Your task to perform on an android device: check android version Image 0: 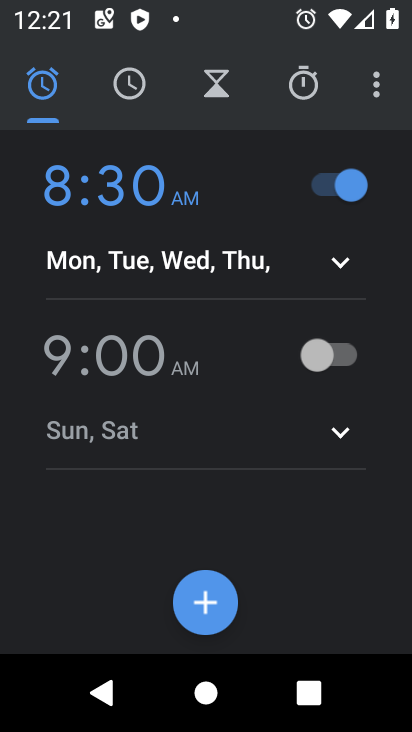
Step 0: press home button
Your task to perform on an android device: check android version Image 1: 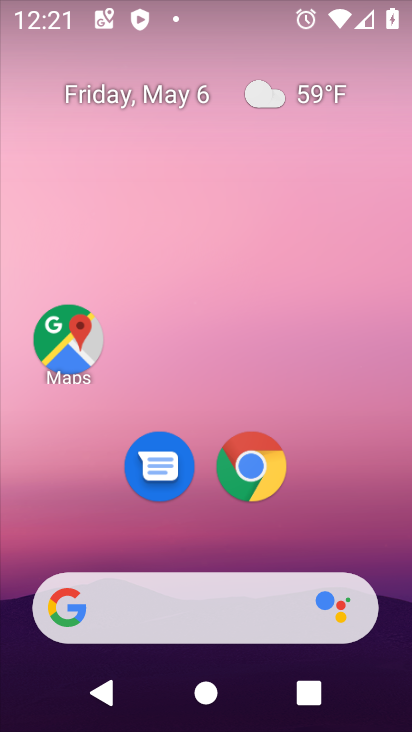
Step 1: drag from (182, 532) to (197, 151)
Your task to perform on an android device: check android version Image 2: 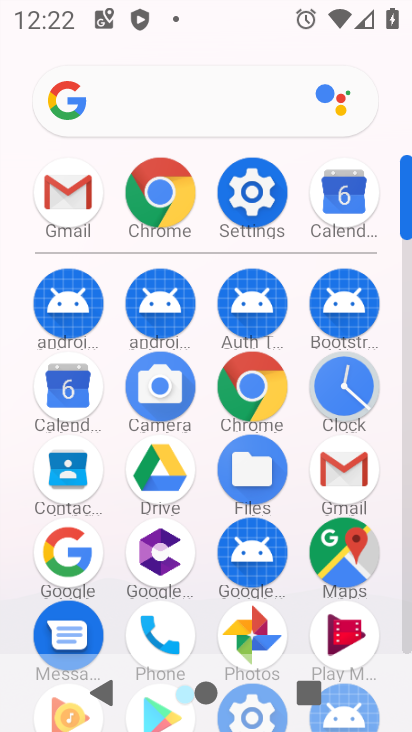
Step 2: click (261, 190)
Your task to perform on an android device: check android version Image 3: 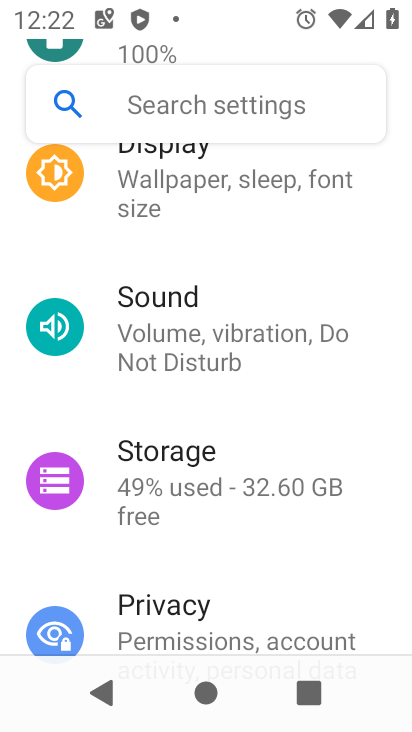
Step 3: drag from (102, 643) to (205, 152)
Your task to perform on an android device: check android version Image 4: 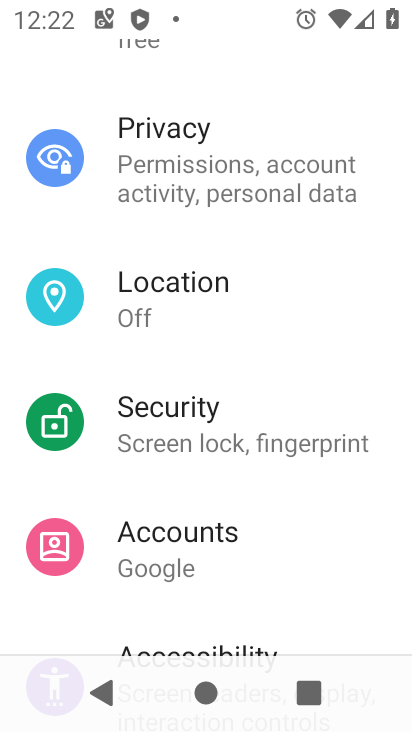
Step 4: drag from (141, 573) to (238, 207)
Your task to perform on an android device: check android version Image 5: 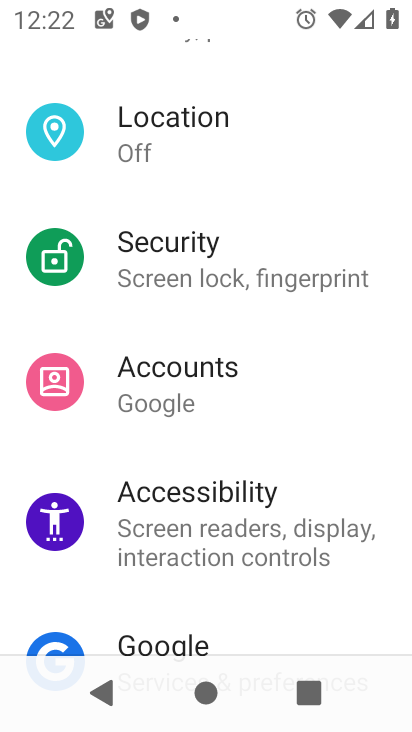
Step 5: drag from (148, 644) to (262, 212)
Your task to perform on an android device: check android version Image 6: 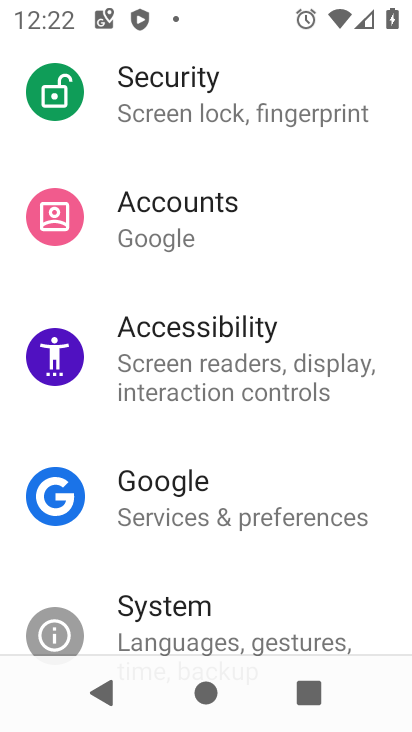
Step 6: drag from (150, 612) to (286, 214)
Your task to perform on an android device: check android version Image 7: 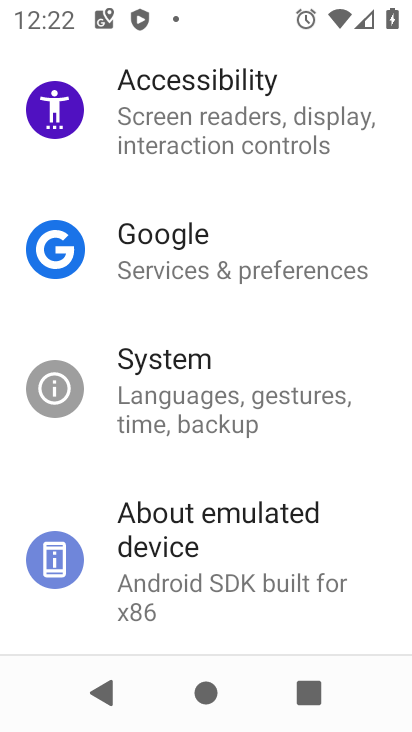
Step 7: click (185, 520)
Your task to perform on an android device: check android version Image 8: 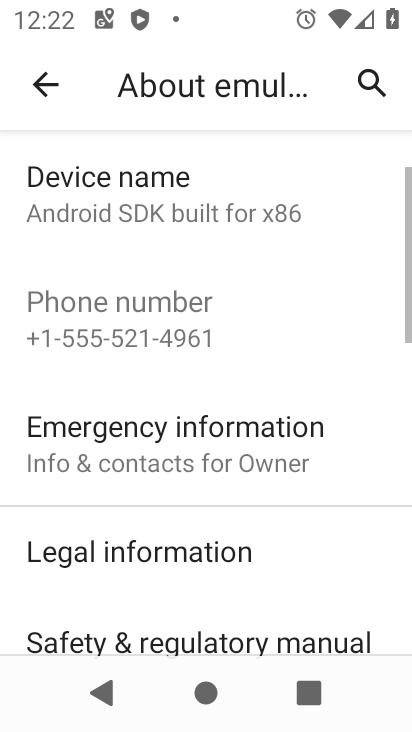
Step 8: drag from (102, 595) to (223, 179)
Your task to perform on an android device: check android version Image 9: 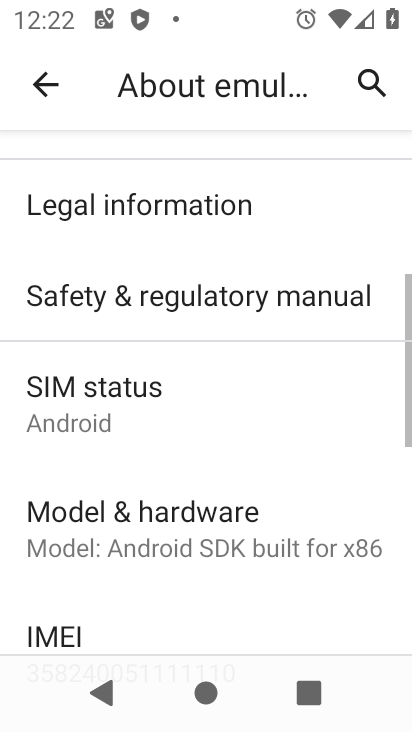
Step 9: drag from (184, 578) to (244, 295)
Your task to perform on an android device: check android version Image 10: 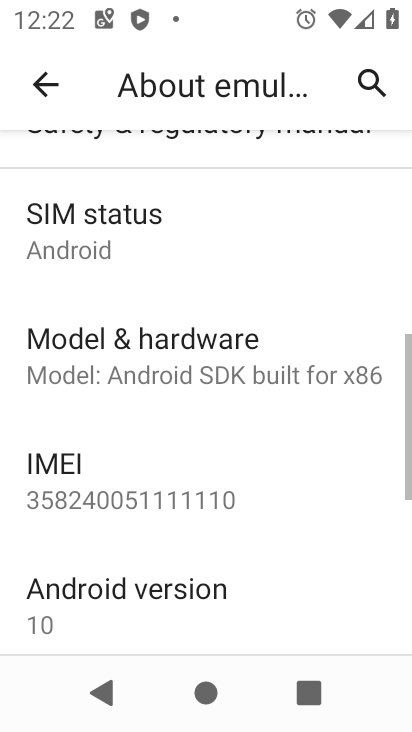
Step 10: click (92, 598)
Your task to perform on an android device: check android version Image 11: 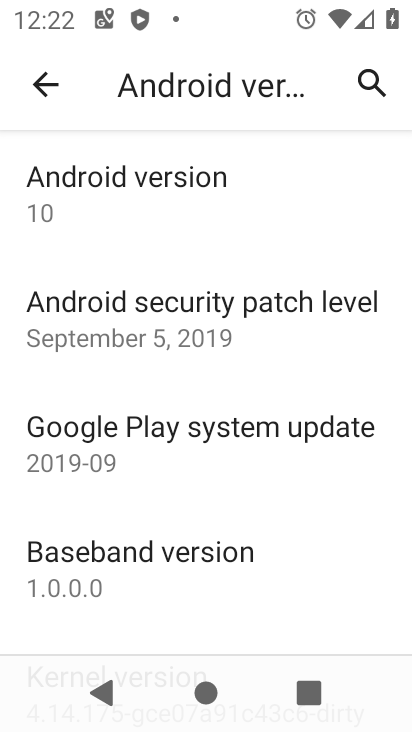
Step 11: click (157, 203)
Your task to perform on an android device: check android version Image 12: 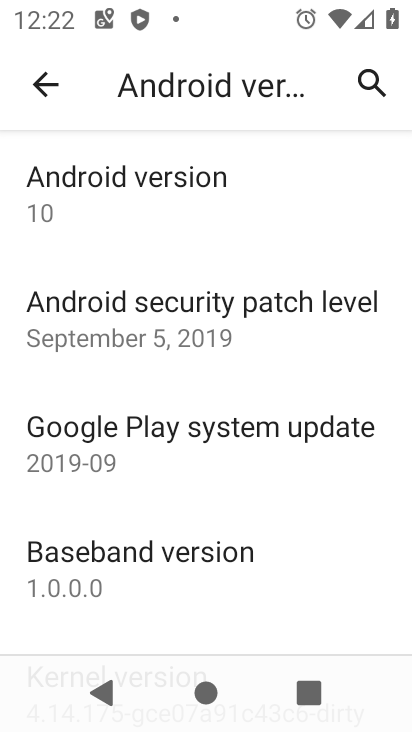
Step 12: task complete